Your task to perform on an android device: Open Google Maps Image 0: 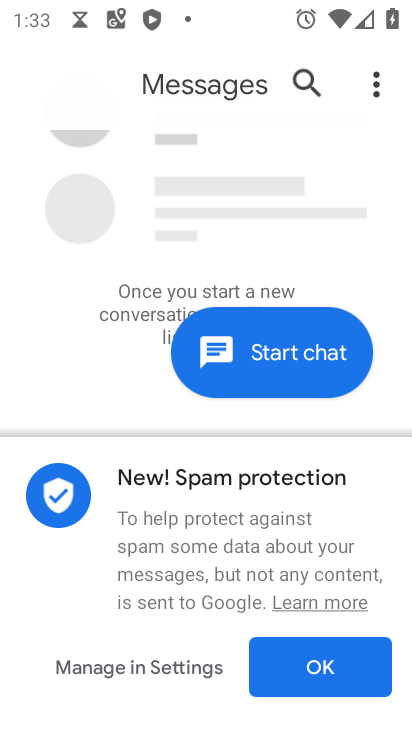
Step 0: press home button
Your task to perform on an android device: Open Google Maps Image 1: 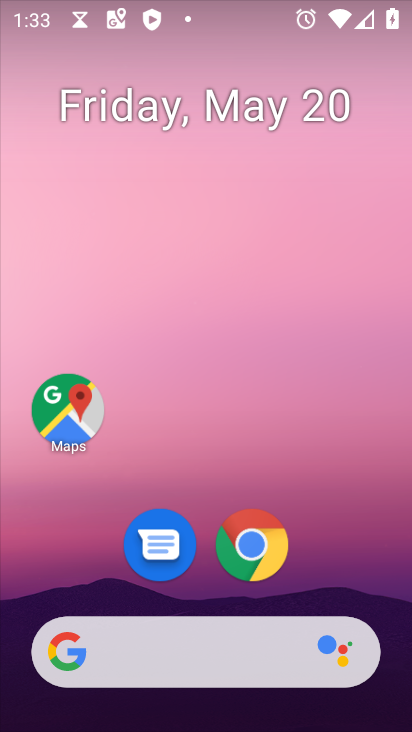
Step 1: drag from (356, 606) to (319, 327)
Your task to perform on an android device: Open Google Maps Image 2: 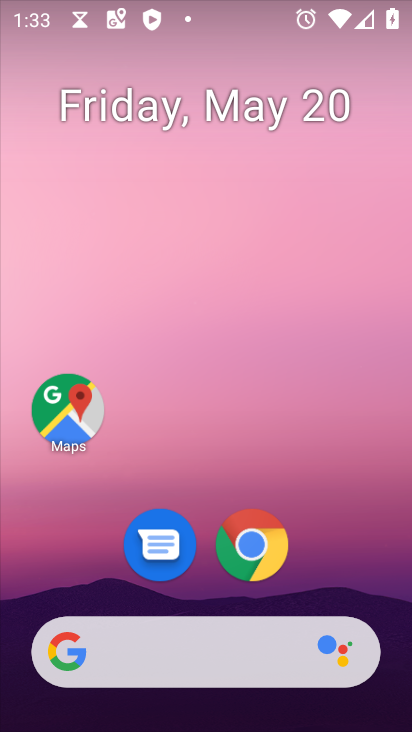
Step 2: drag from (314, 551) to (277, 158)
Your task to perform on an android device: Open Google Maps Image 3: 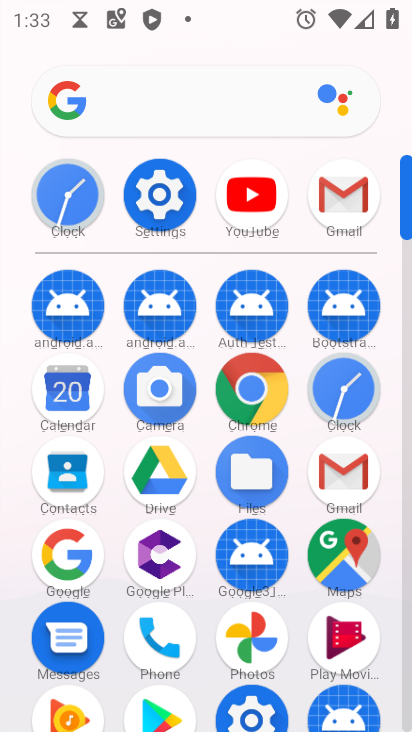
Step 3: click (340, 567)
Your task to perform on an android device: Open Google Maps Image 4: 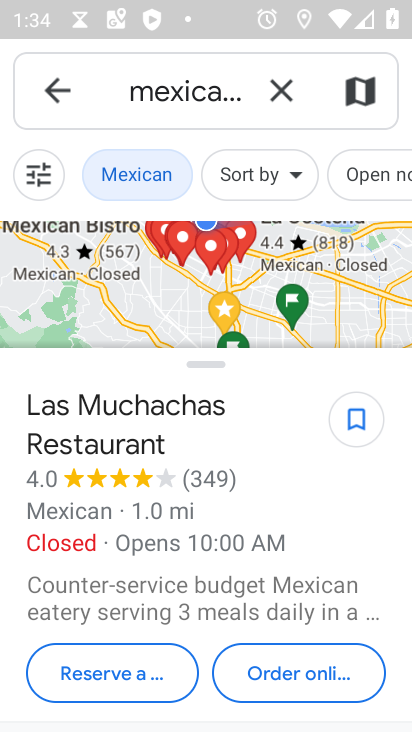
Step 4: task complete